Your task to perform on an android device: Search for pizza restaurants on Maps Image 0: 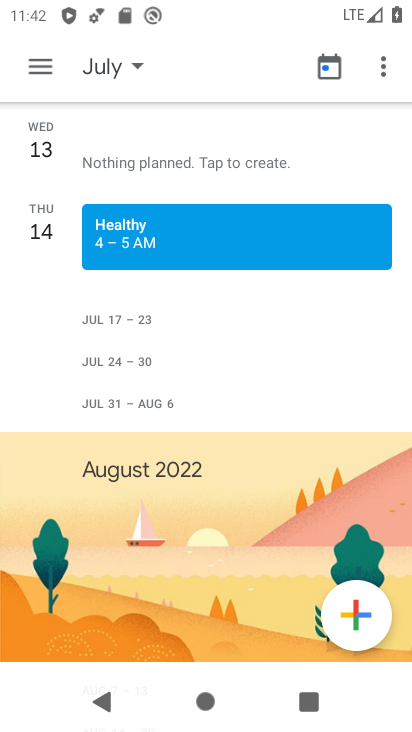
Step 0: press home button
Your task to perform on an android device: Search for pizza restaurants on Maps Image 1: 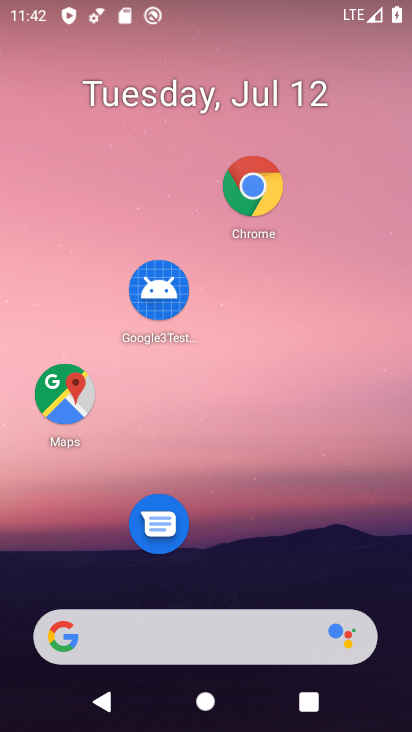
Step 1: drag from (213, 592) to (163, 135)
Your task to perform on an android device: Search for pizza restaurants on Maps Image 2: 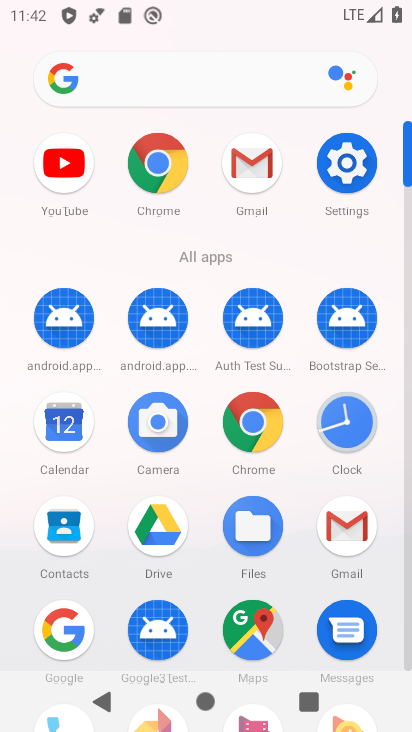
Step 2: click (253, 628)
Your task to perform on an android device: Search for pizza restaurants on Maps Image 3: 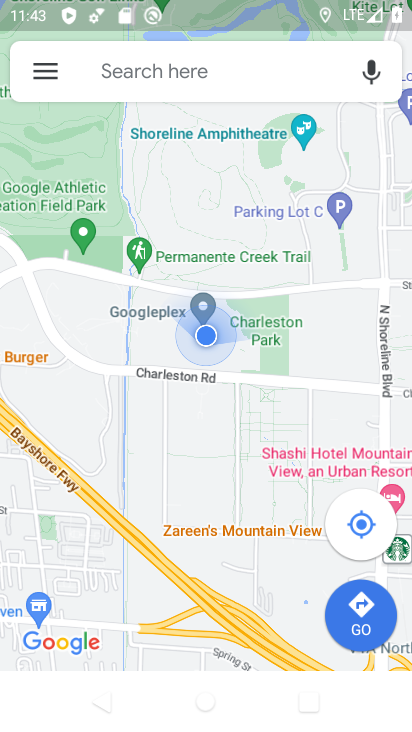
Step 3: click (226, 78)
Your task to perform on an android device: Search for pizza restaurants on Maps Image 4: 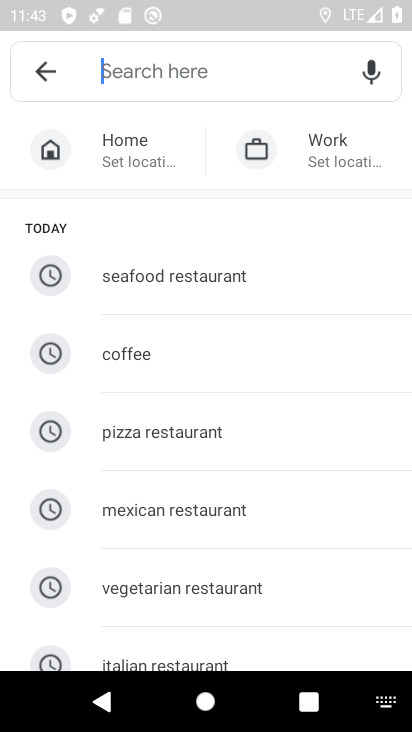
Step 4: click (199, 423)
Your task to perform on an android device: Search for pizza restaurants on Maps Image 5: 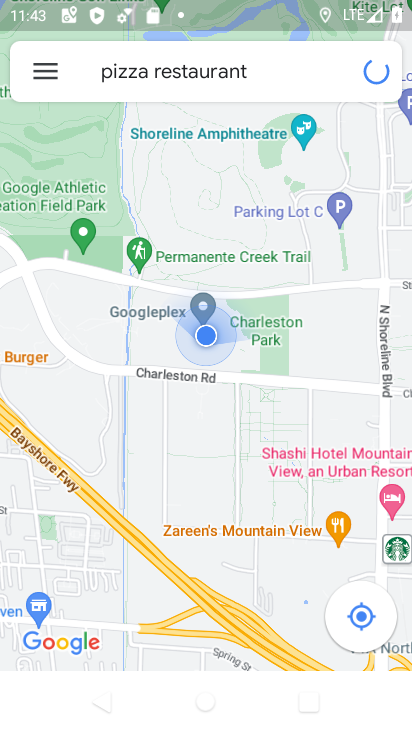
Step 5: task complete